Your task to perform on an android device: make emails show in primary in the gmail app Image 0: 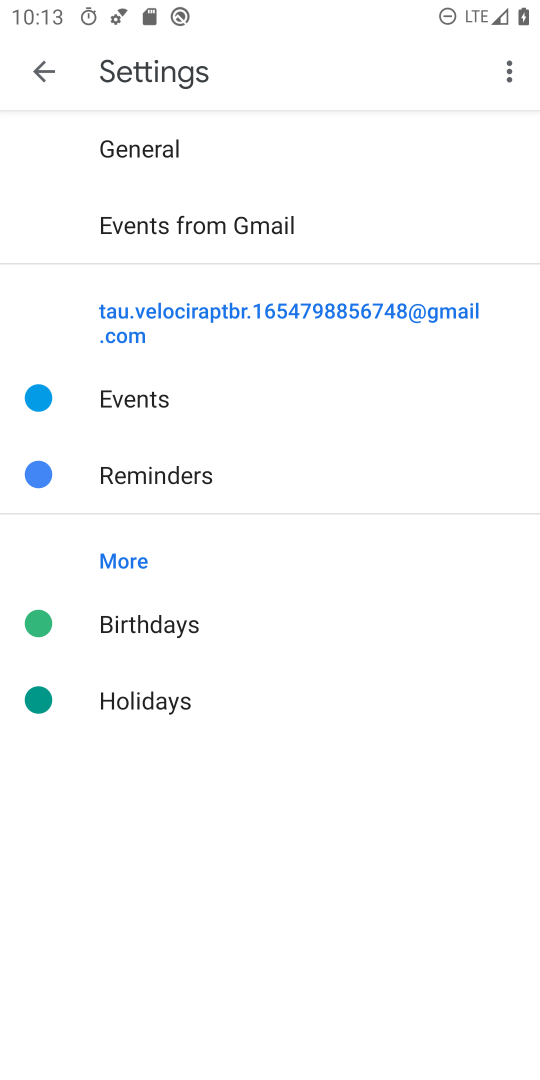
Step 0: press home button
Your task to perform on an android device: make emails show in primary in the gmail app Image 1: 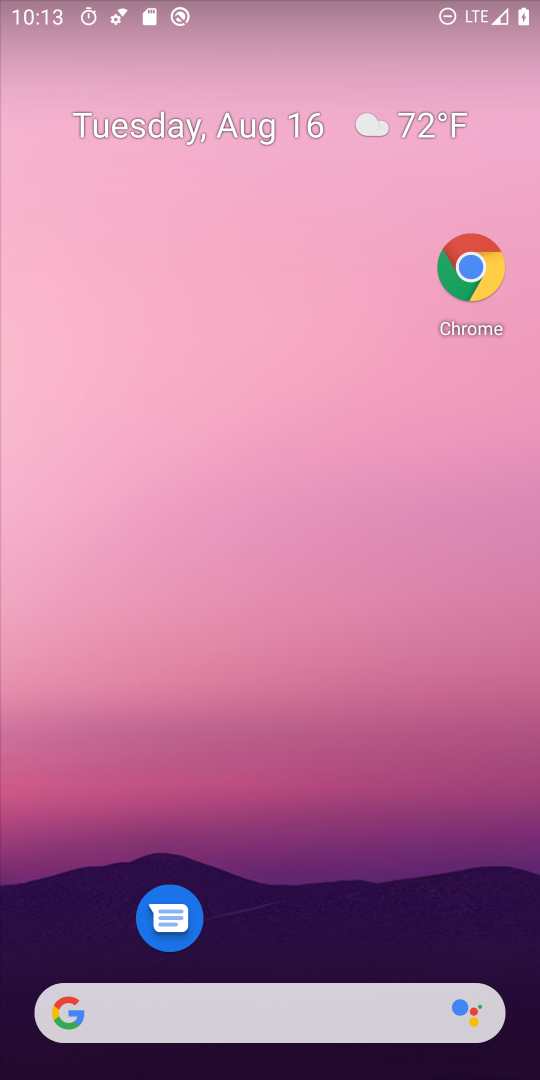
Step 1: drag from (307, 929) to (322, 274)
Your task to perform on an android device: make emails show in primary in the gmail app Image 2: 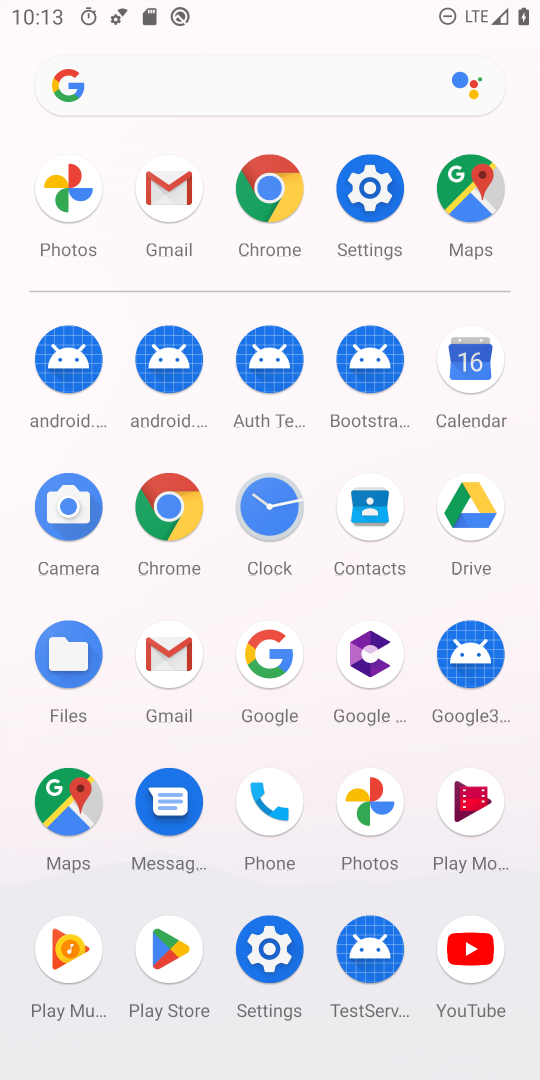
Step 2: click (175, 662)
Your task to perform on an android device: make emails show in primary in the gmail app Image 3: 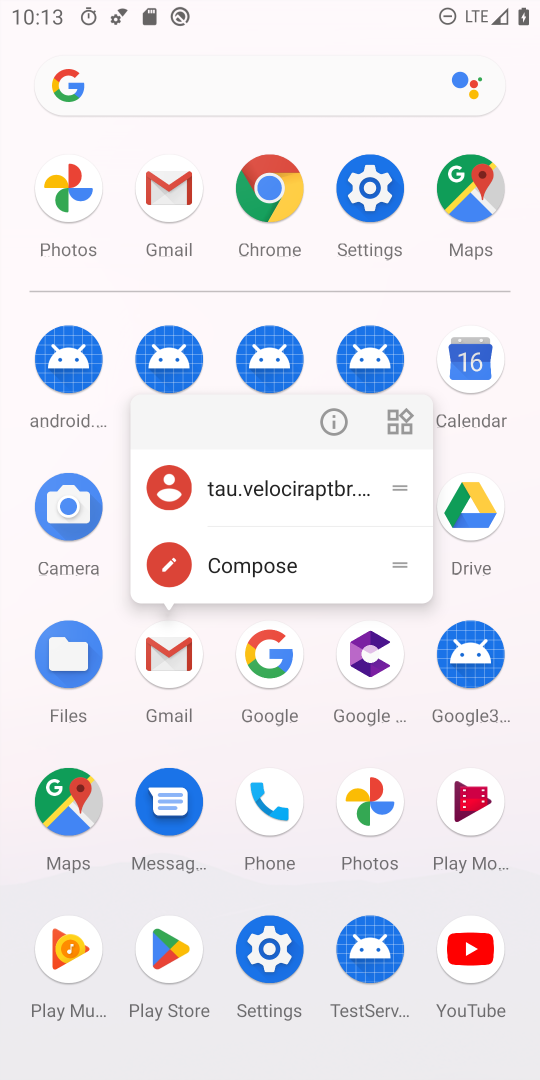
Step 3: click (175, 662)
Your task to perform on an android device: make emails show in primary in the gmail app Image 4: 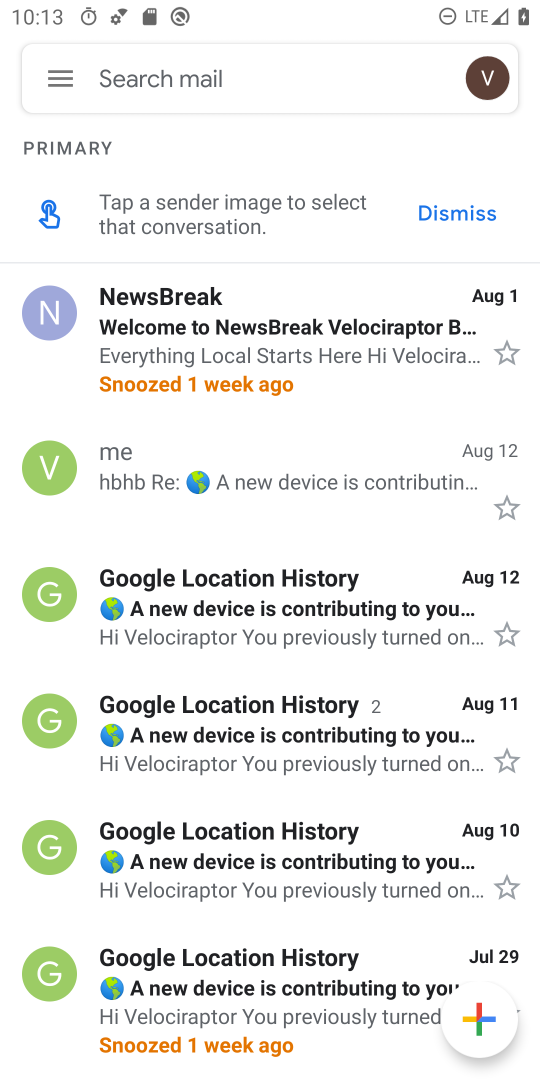
Step 4: click (56, 76)
Your task to perform on an android device: make emails show in primary in the gmail app Image 5: 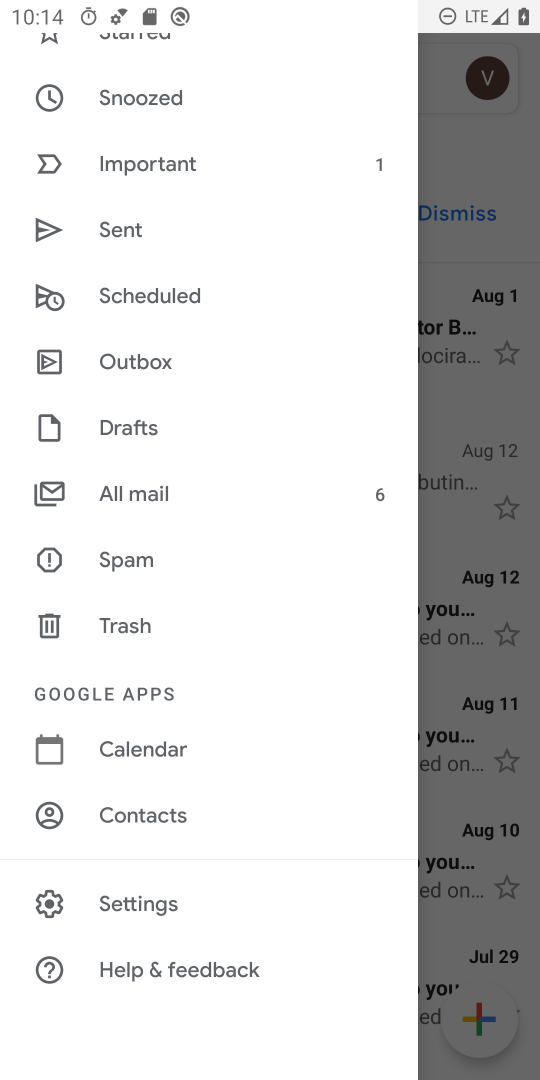
Step 5: click (185, 896)
Your task to perform on an android device: make emails show in primary in the gmail app Image 6: 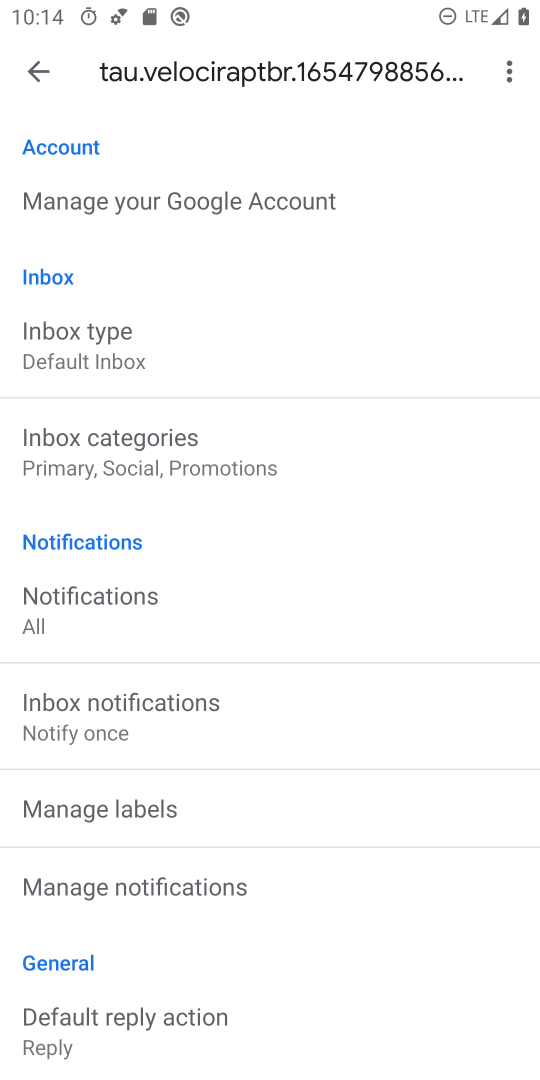
Step 6: task complete